Your task to perform on an android device: Open the map Image 0: 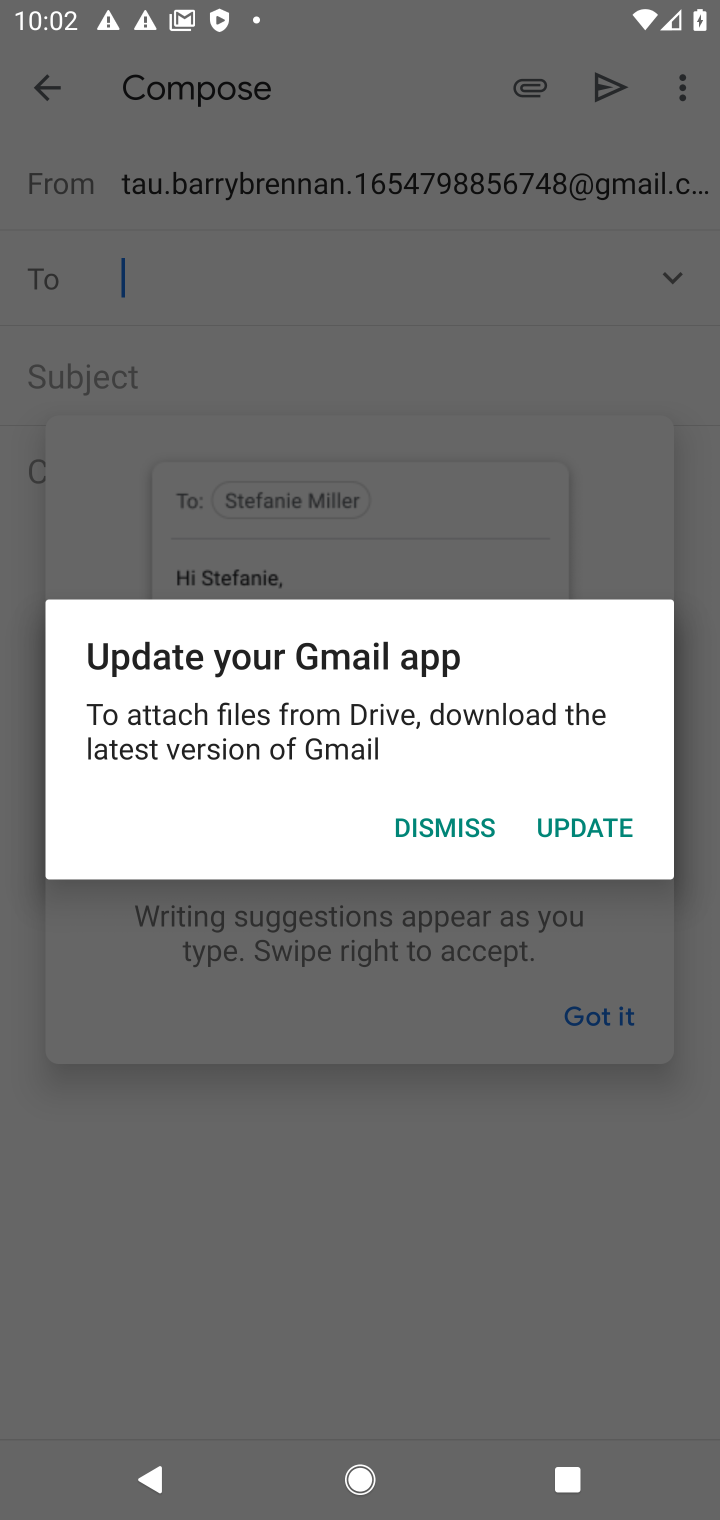
Step 0: press home button
Your task to perform on an android device: Open the map Image 1: 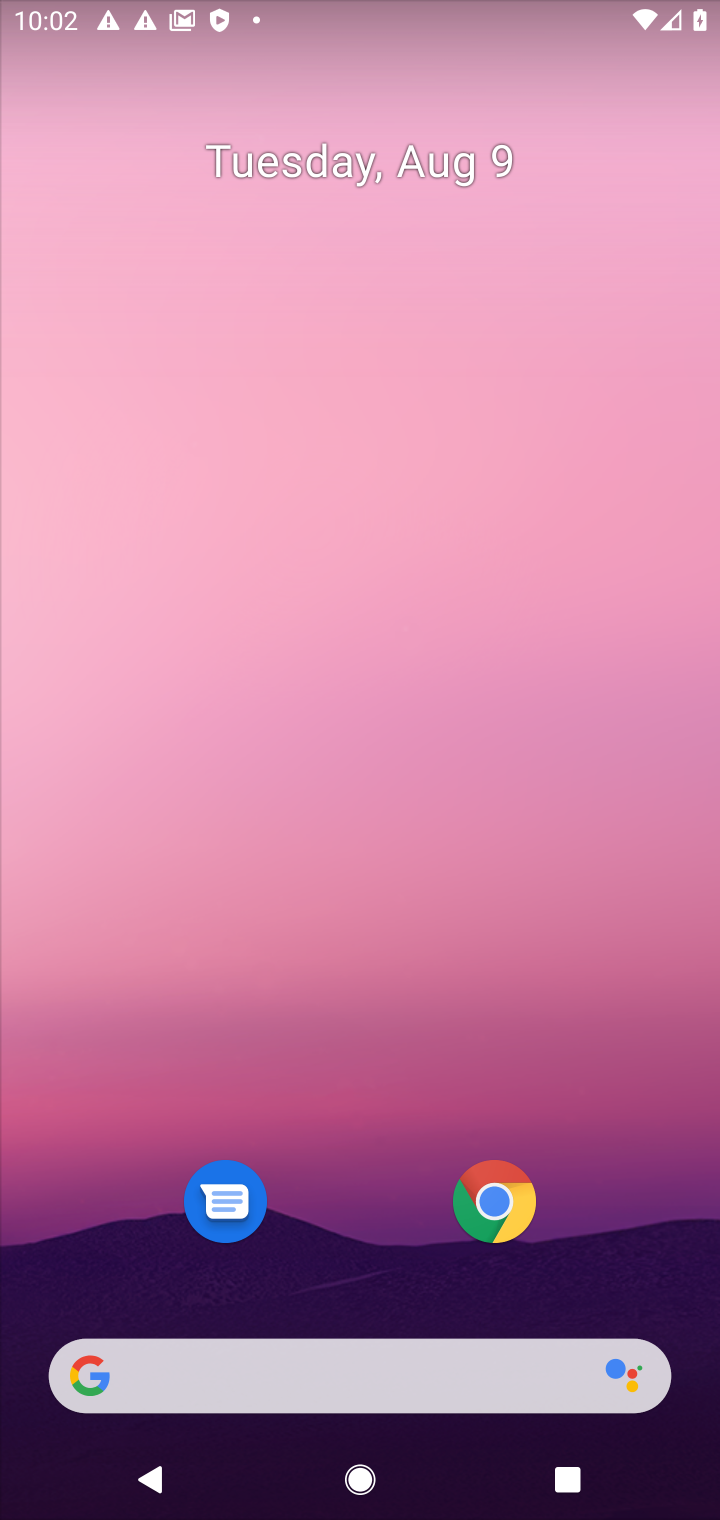
Step 1: drag from (379, 937) to (494, 301)
Your task to perform on an android device: Open the map Image 2: 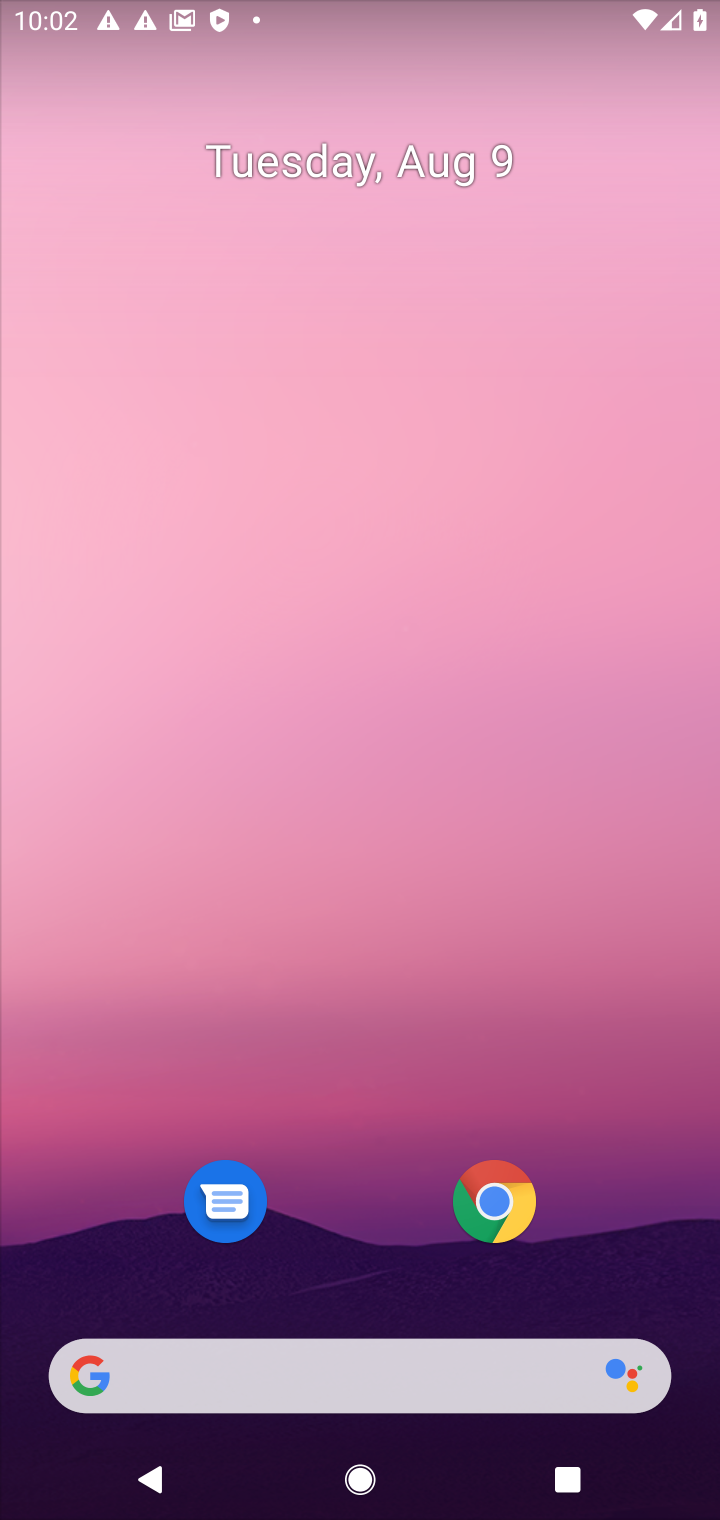
Step 2: drag from (338, 1082) to (415, 638)
Your task to perform on an android device: Open the map Image 3: 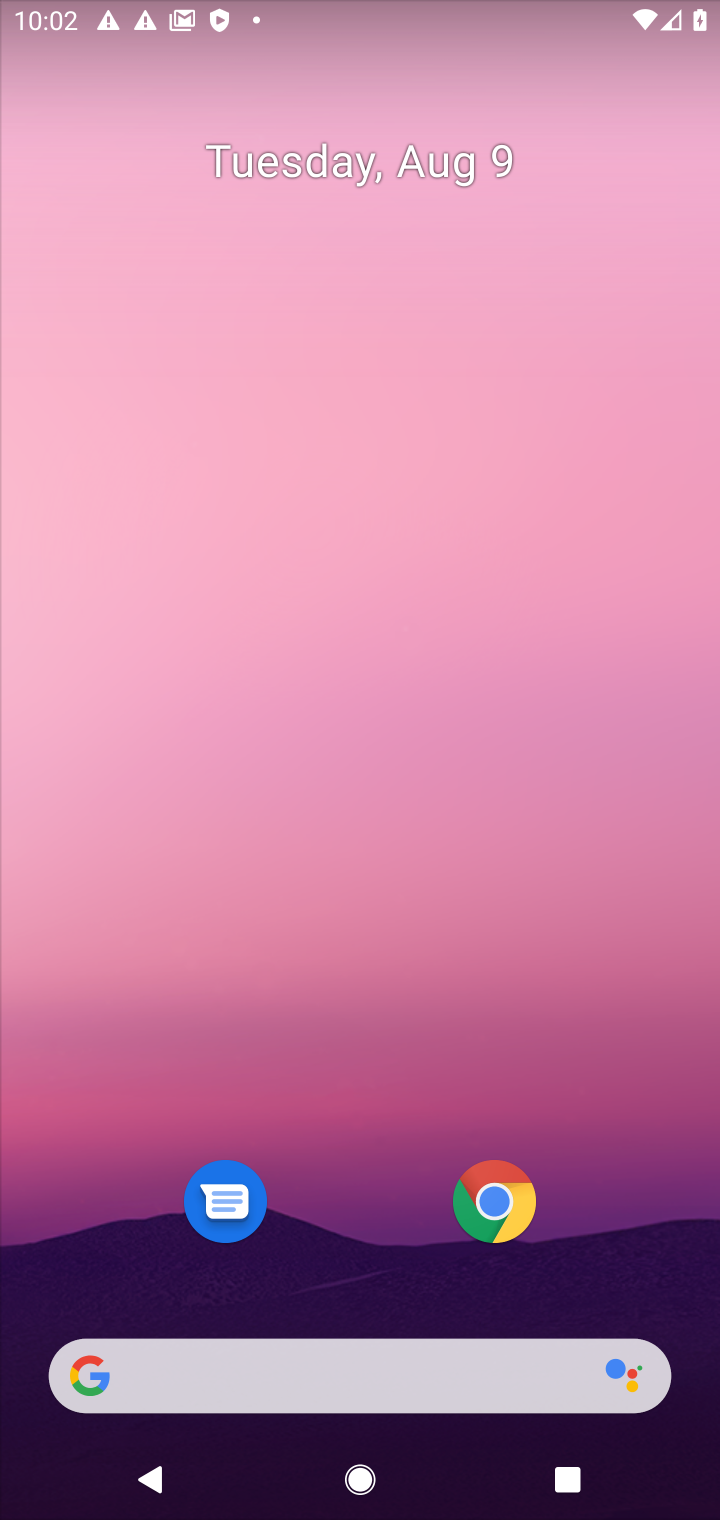
Step 3: drag from (397, 924) to (385, 187)
Your task to perform on an android device: Open the map Image 4: 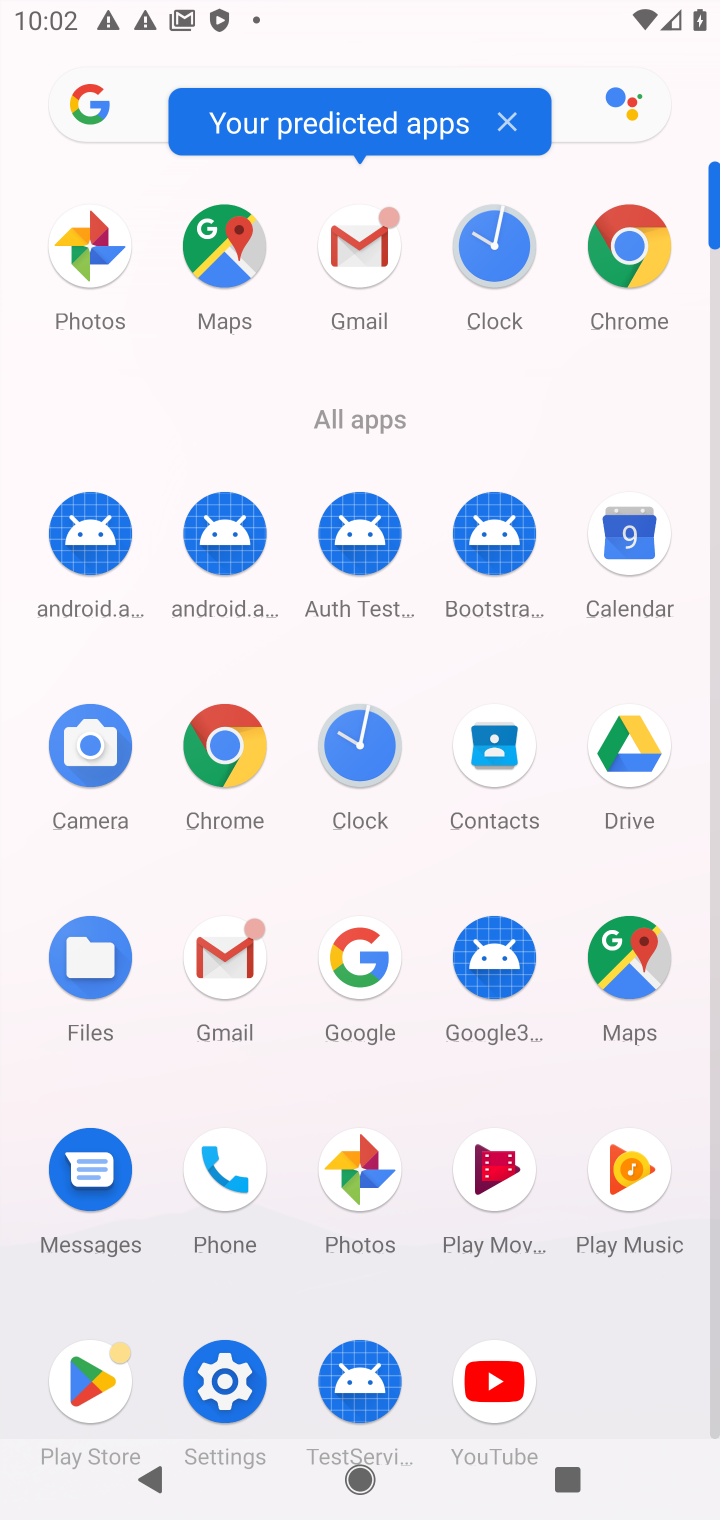
Step 4: click (239, 264)
Your task to perform on an android device: Open the map Image 5: 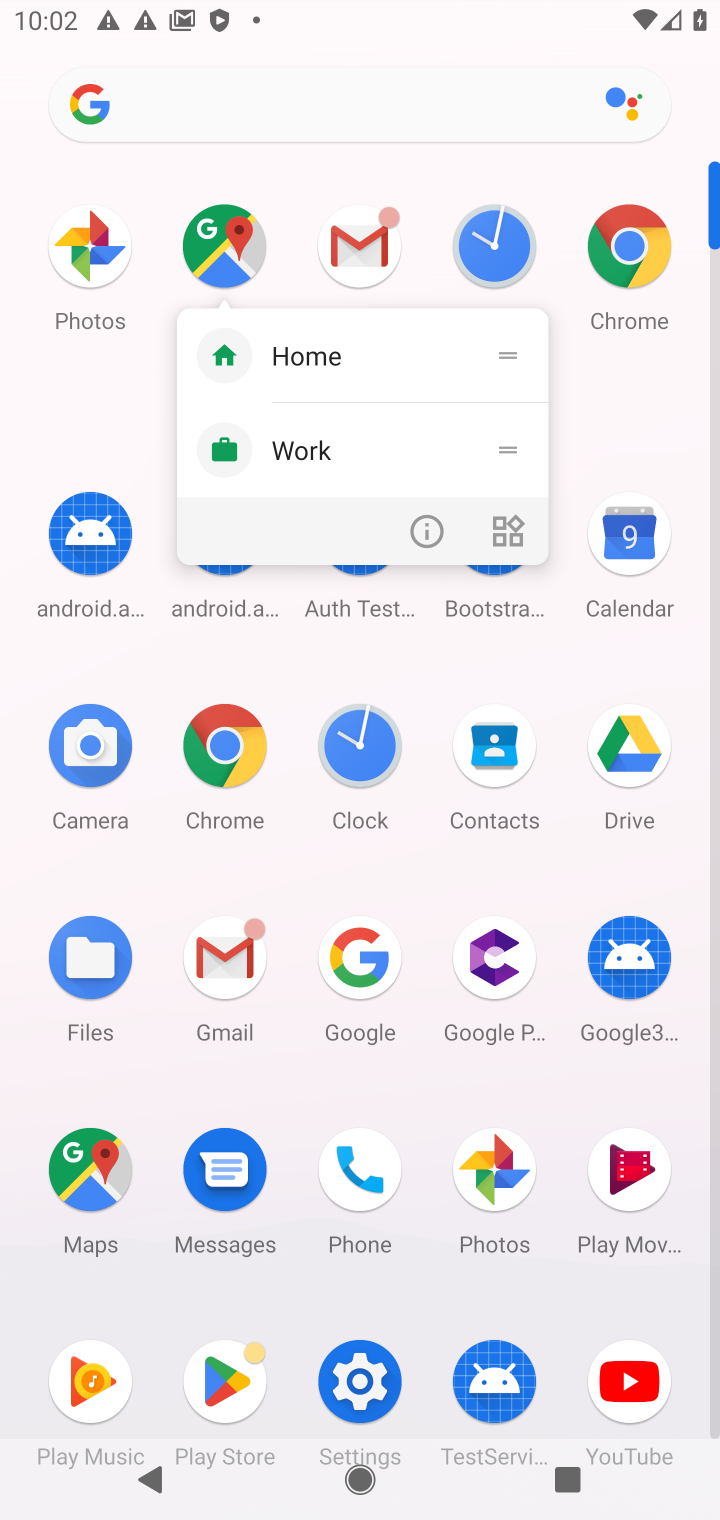
Step 5: click (233, 270)
Your task to perform on an android device: Open the map Image 6: 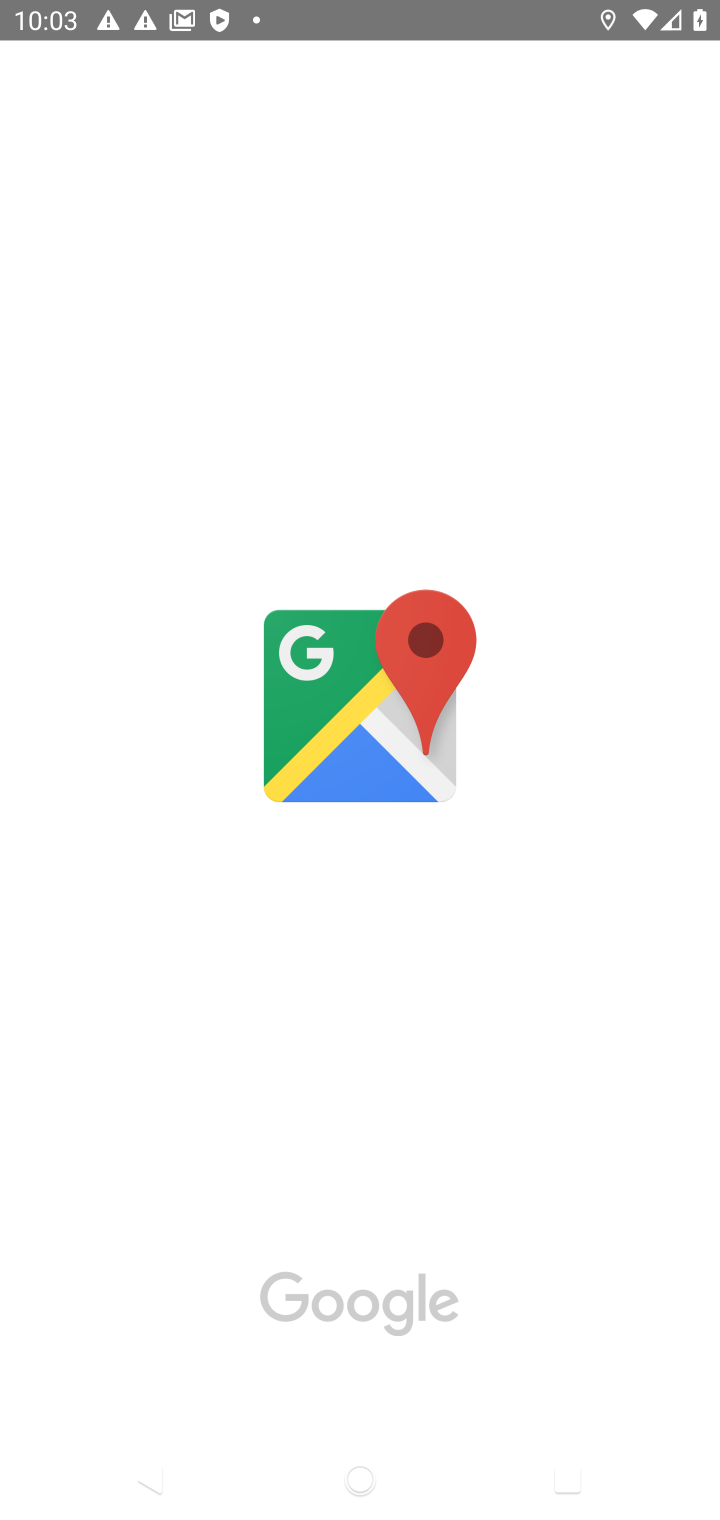
Step 6: task complete